Your task to perform on an android device: Open the Play Movies app and select the watchlist tab. Image 0: 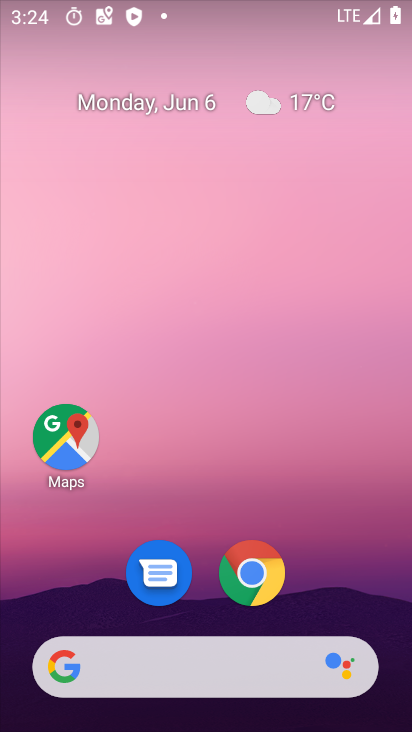
Step 0: drag from (375, 609) to (356, 168)
Your task to perform on an android device: Open the Play Movies app and select the watchlist tab. Image 1: 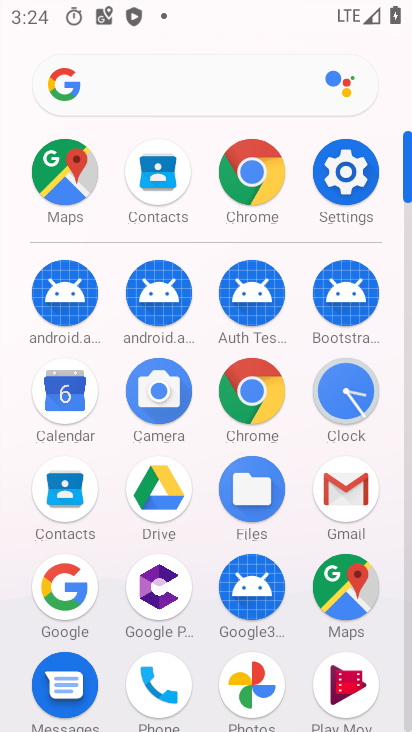
Step 1: click (347, 690)
Your task to perform on an android device: Open the Play Movies app and select the watchlist tab. Image 2: 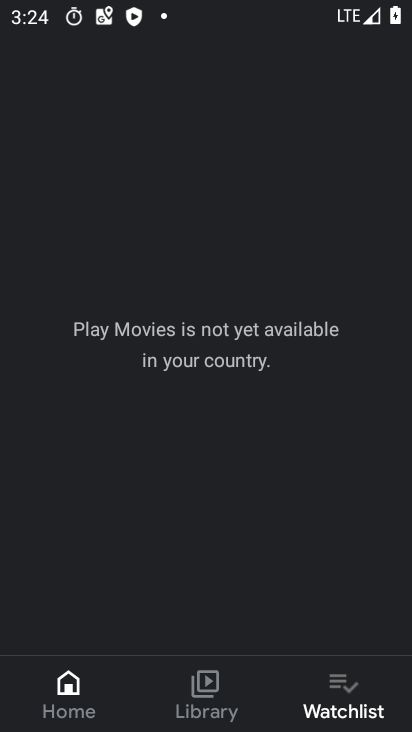
Step 2: task complete